Your task to perform on an android device: toggle notification dots Image 0: 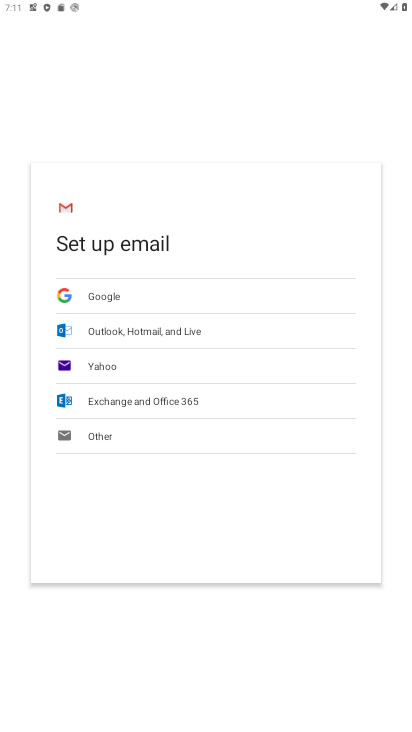
Step 0: press home button
Your task to perform on an android device: toggle notification dots Image 1: 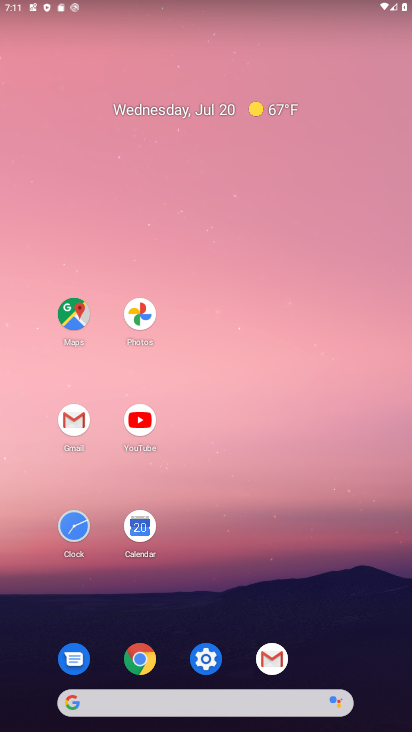
Step 1: click (206, 666)
Your task to perform on an android device: toggle notification dots Image 2: 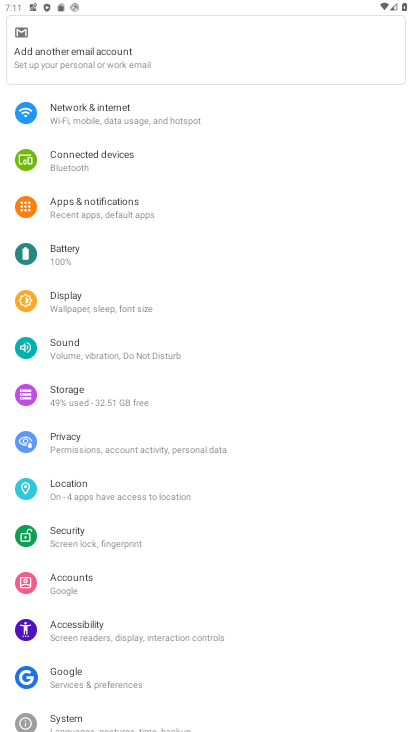
Step 2: click (106, 199)
Your task to perform on an android device: toggle notification dots Image 3: 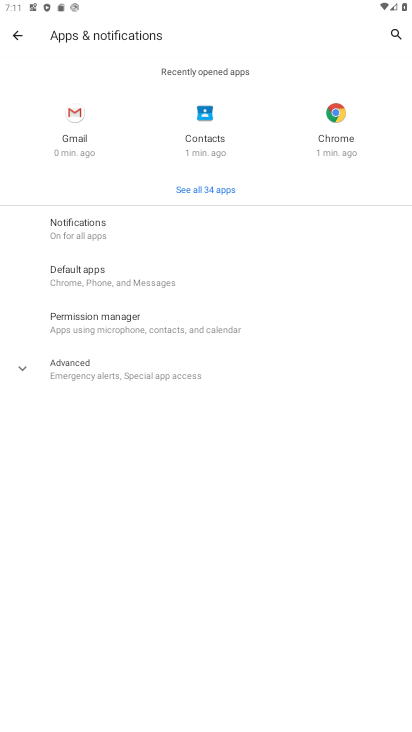
Step 3: click (66, 221)
Your task to perform on an android device: toggle notification dots Image 4: 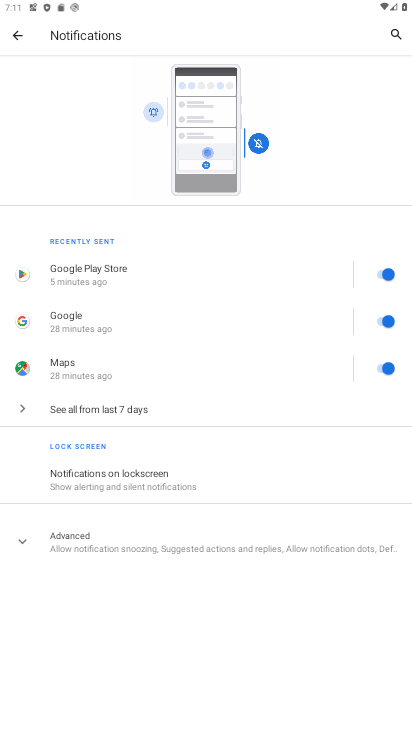
Step 4: click (25, 537)
Your task to perform on an android device: toggle notification dots Image 5: 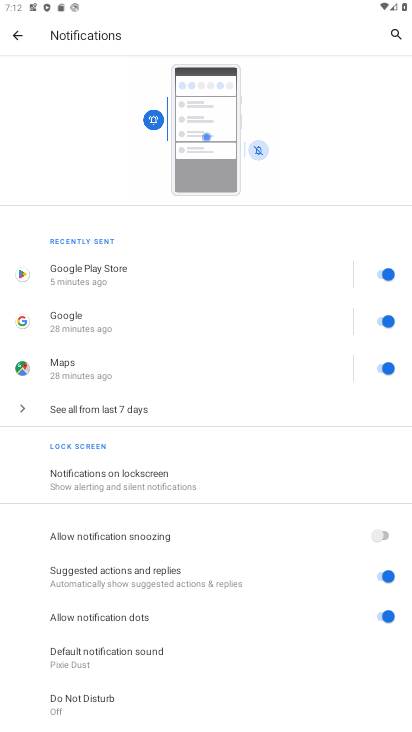
Step 5: click (383, 615)
Your task to perform on an android device: toggle notification dots Image 6: 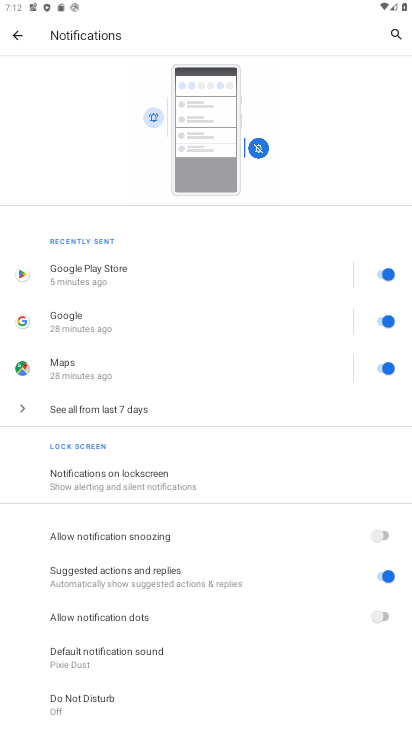
Step 6: task complete